Your task to perform on an android device: Find coffee shops on Maps Image 0: 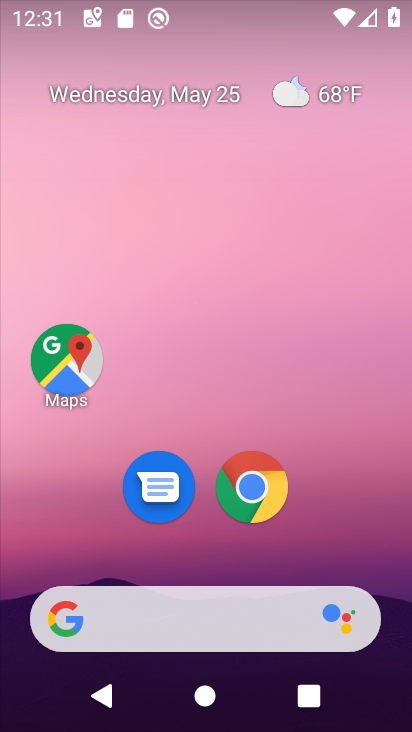
Step 0: click (66, 349)
Your task to perform on an android device: Find coffee shops on Maps Image 1: 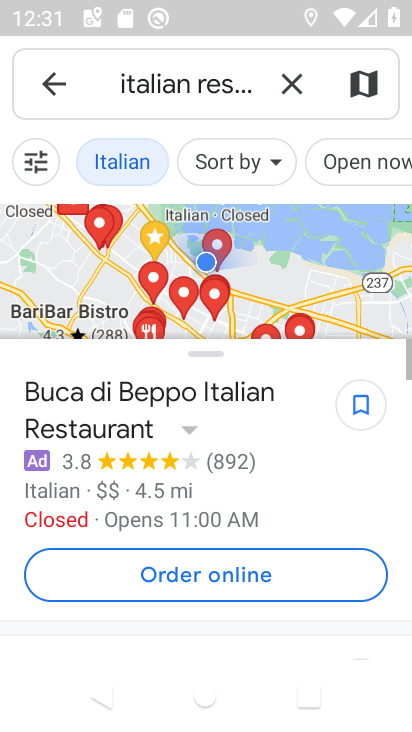
Step 1: click (292, 91)
Your task to perform on an android device: Find coffee shops on Maps Image 2: 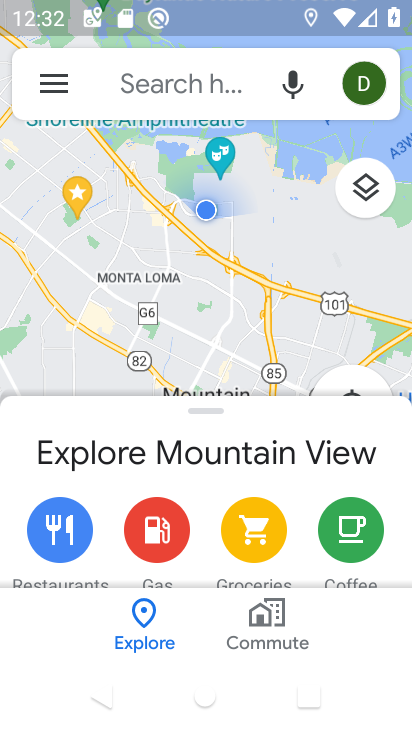
Step 2: click (149, 66)
Your task to perform on an android device: Find coffee shops on Maps Image 3: 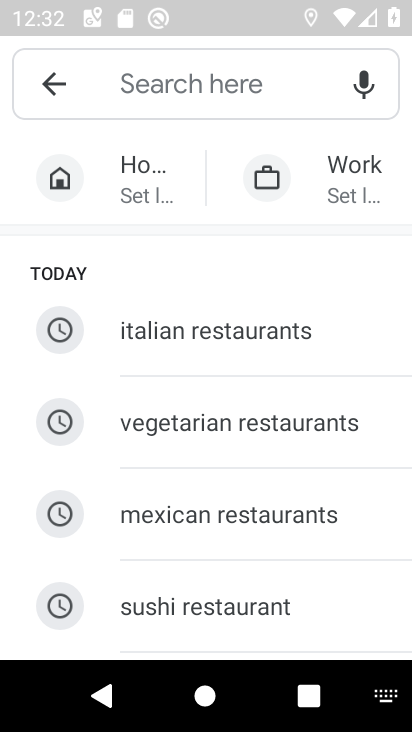
Step 3: drag from (233, 590) to (276, 204)
Your task to perform on an android device: Find coffee shops on Maps Image 4: 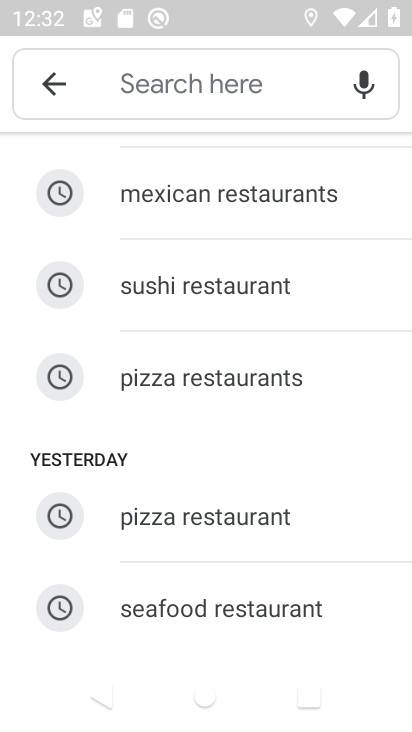
Step 4: drag from (159, 582) to (247, 116)
Your task to perform on an android device: Find coffee shops on Maps Image 5: 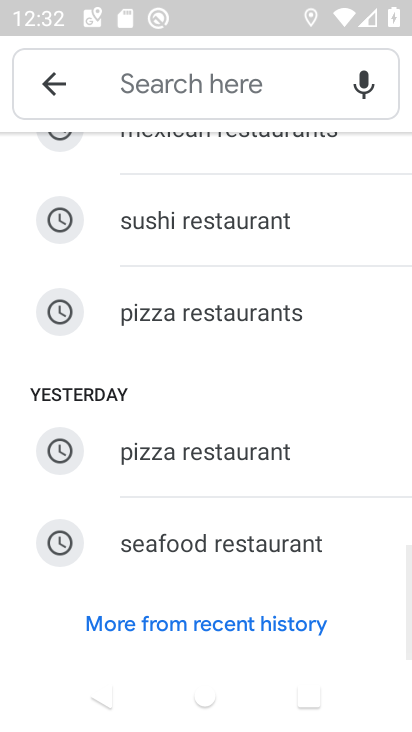
Step 5: drag from (236, 160) to (204, 696)
Your task to perform on an android device: Find coffee shops on Maps Image 6: 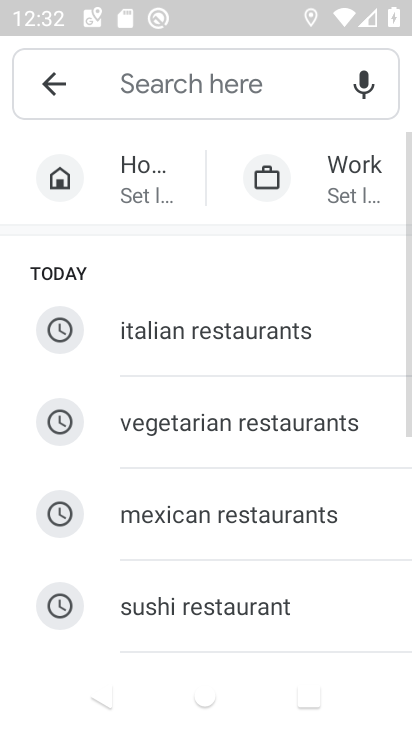
Step 6: click (152, 88)
Your task to perform on an android device: Find coffee shops on Maps Image 7: 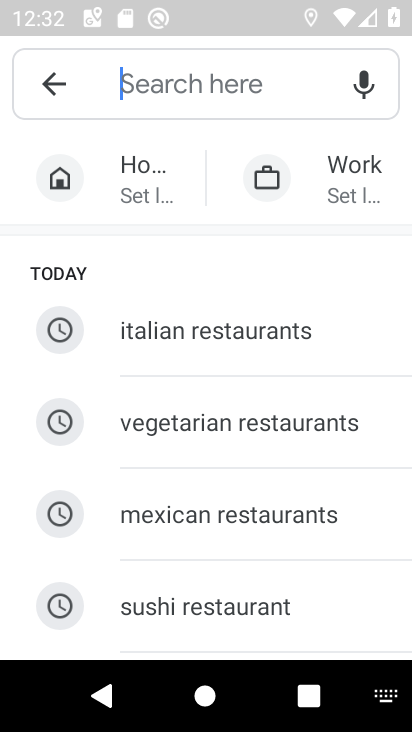
Step 7: type "coffe shops"
Your task to perform on an android device: Find coffee shops on Maps Image 8: 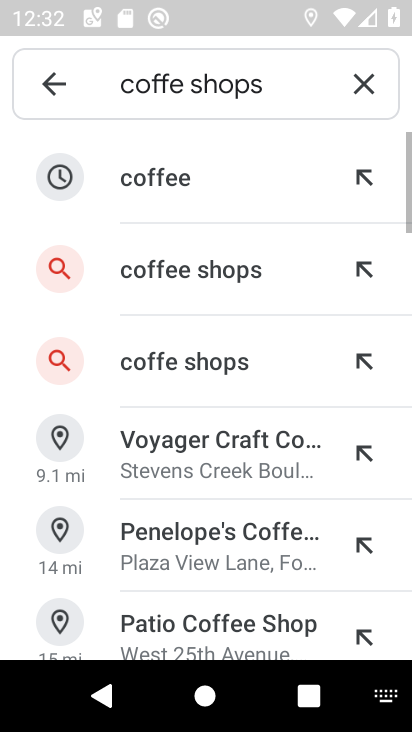
Step 8: click (194, 268)
Your task to perform on an android device: Find coffee shops on Maps Image 9: 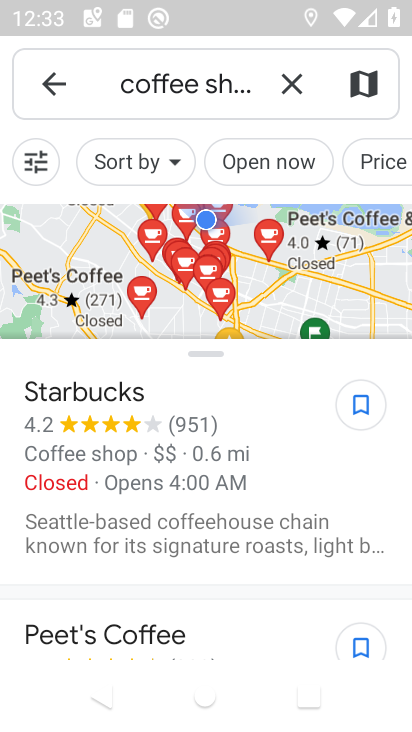
Step 9: task complete